Your task to perform on an android device: turn off priority inbox in the gmail app Image 0: 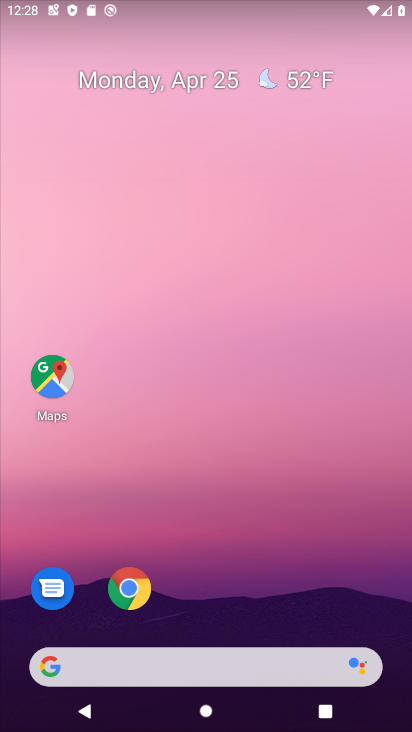
Step 0: drag from (130, 617) to (243, 60)
Your task to perform on an android device: turn off priority inbox in the gmail app Image 1: 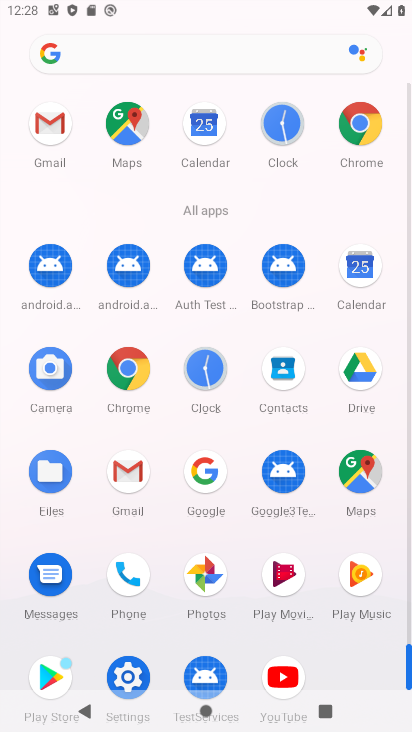
Step 1: click (130, 476)
Your task to perform on an android device: turn off priority inbox in the gmail app Image 2: 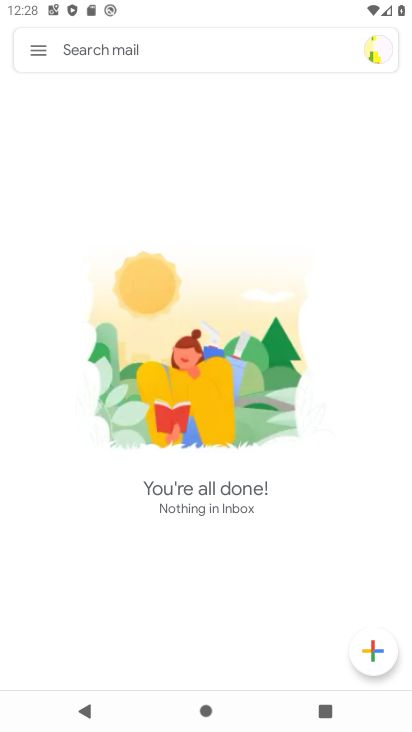
Step 2: click (36, 45)
Your task to perform on an android device: turn off priority inbox in the gmail app Image 3: 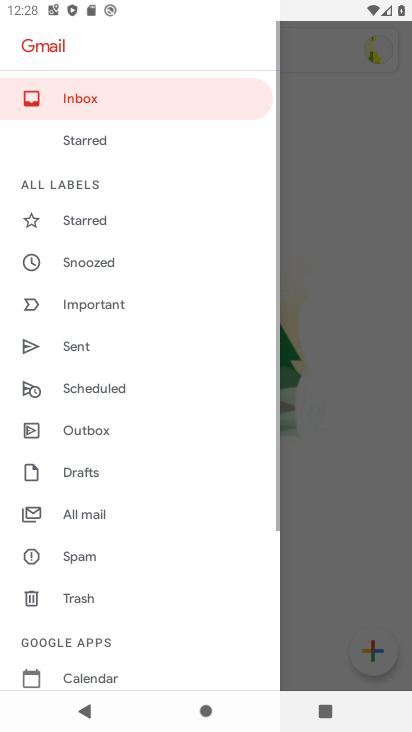
Step 3: drag from (109, 597) to (211, 261)
Your task to perform on an android device: turn off priority inbox in the gmail app Image 4: 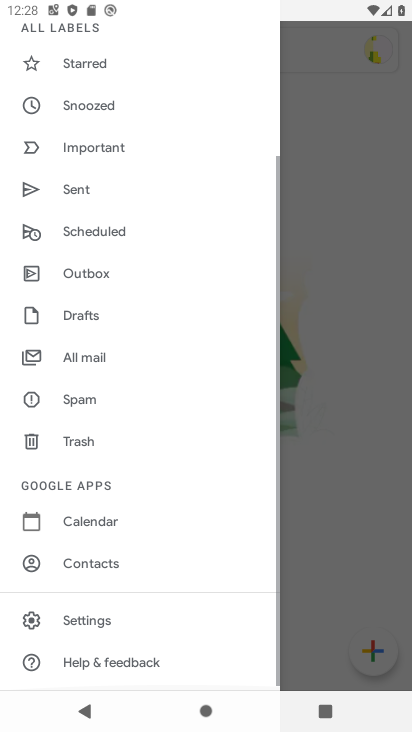
Step 4: click (139, 623)
Your task to perform on an android device: turn off priority inbox in the gmail app Image 5: 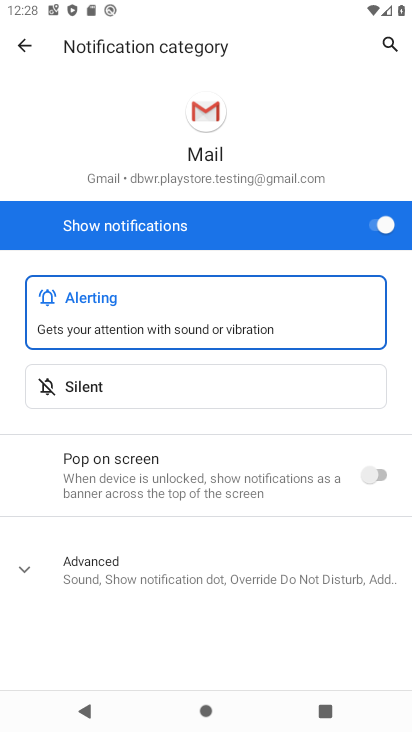
Step 5: press back button
Your task to perform on an android device: turn off priority inbox in the gmail app Image 6: 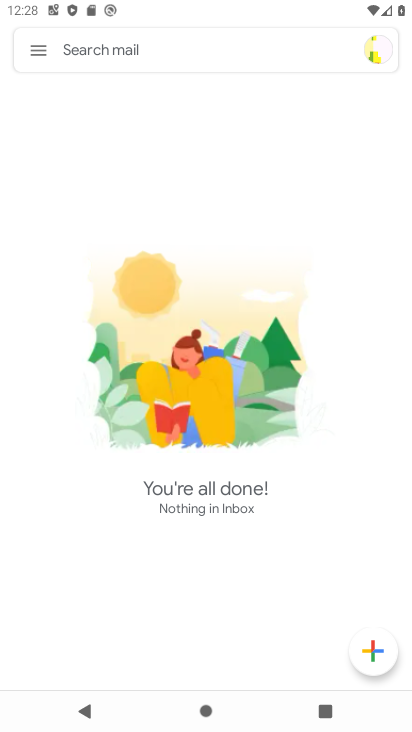
Step 6: click (31, 43)
Your task to perform on an android device: turn off priority inbox in the gmail app Image 7: 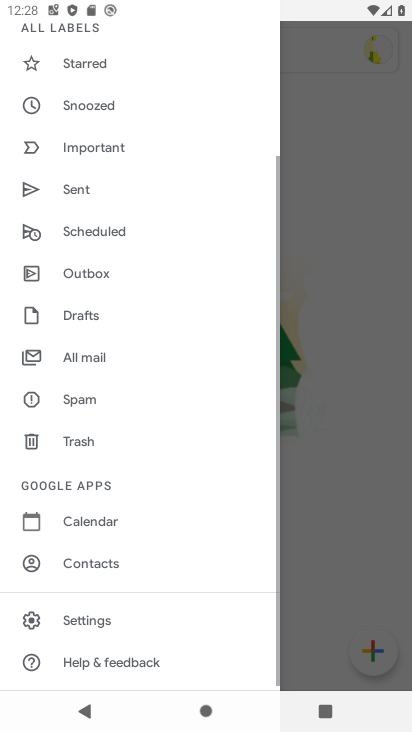
Step 7: click (105, 621)
Your task to perform on an android device: turn off priority inbox in the gmail app Image 8: 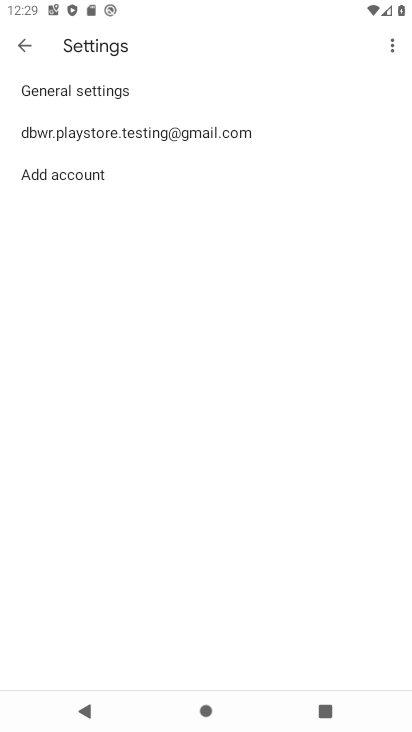
Step 8: click (295, 146)
Your task to perform on an android device: turn off priority inbox in the gmail app Image 9: 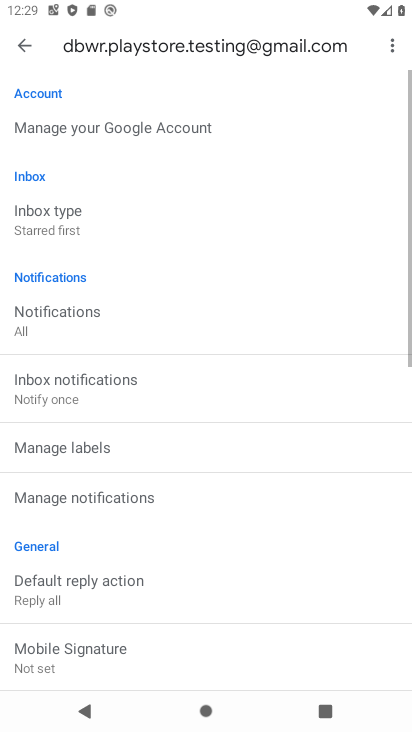
Step 9: task complete